Your task to perform on an android device: Go to Google Image 0: 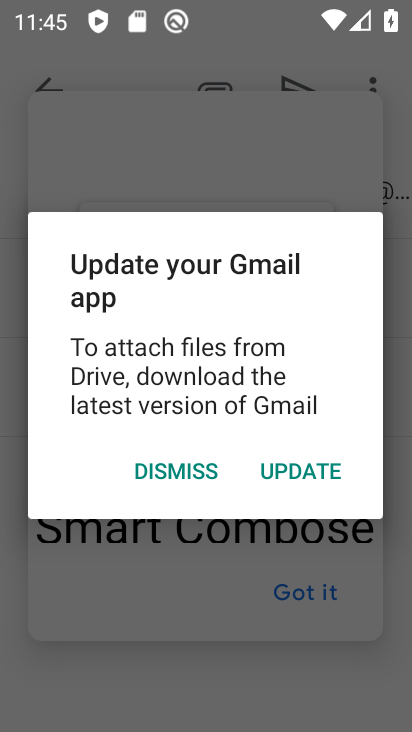
Step 0: press home button
Your task to perform on an android device: Go to Google Image 1: 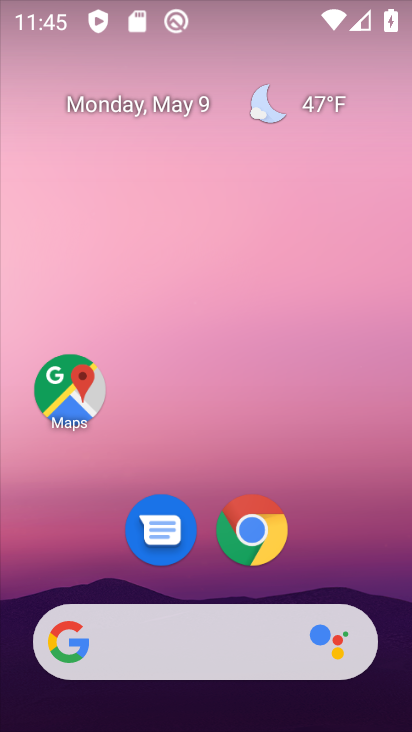
Step 1: drag from (353, 542) to (383, 172)
Your task to perform on an android device: Go to Google Image 2: 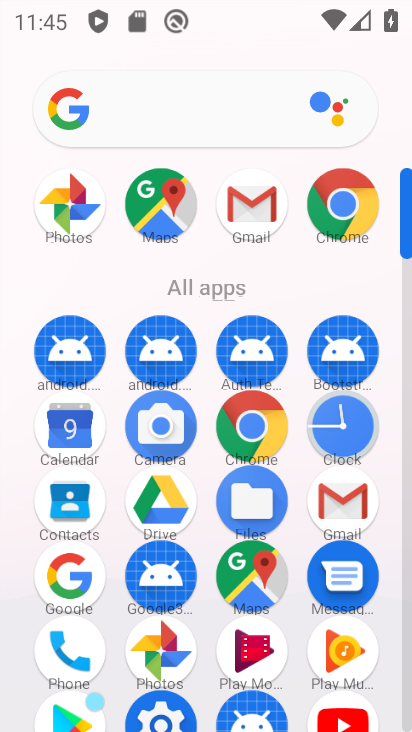
Step 2: click (47, 598)
Your task to perform on an android device: Go to Google Image 3: 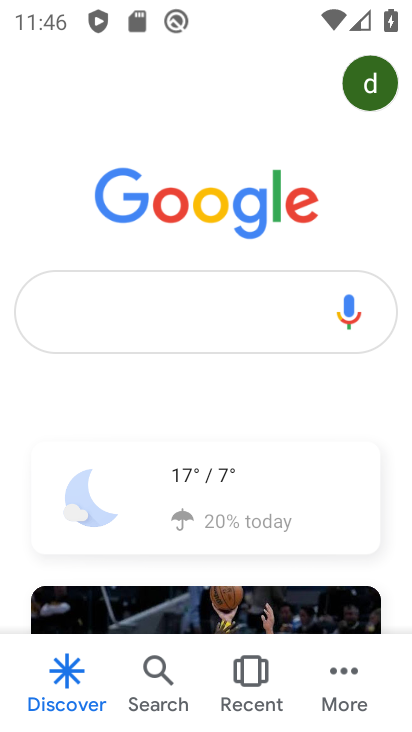
Step 3: task complete